Your task to perform on an android device: find which apps use the phone's location Image 0: 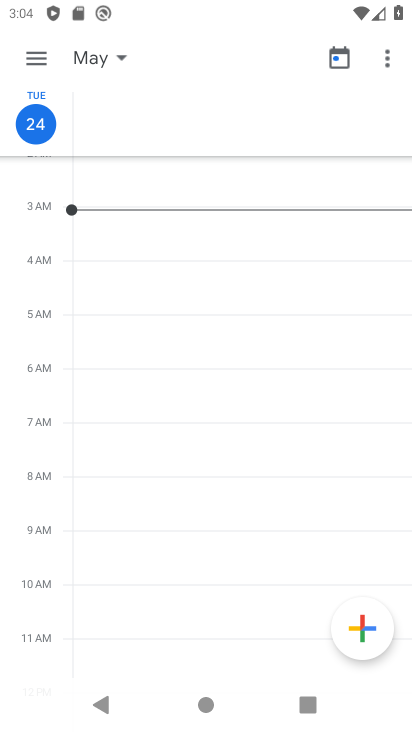
Step 0: press back button
Your task to perform on an android device: find which apps use the phone's location Image 1: 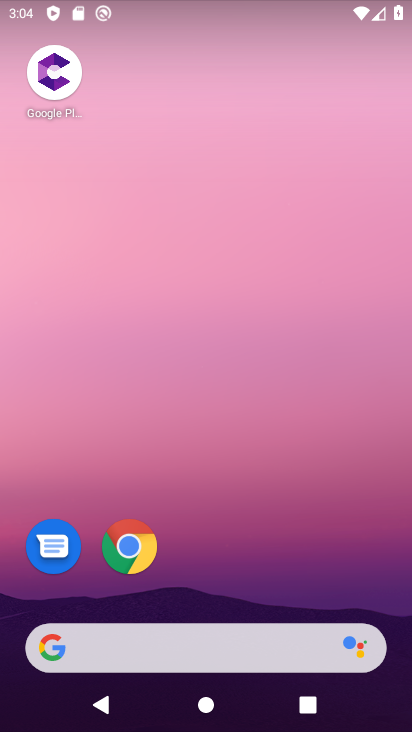
Step 1: drag from (200, 631) to (137, 44)
Your task to perform on an android device: find which apps use the phone's location Image 2: 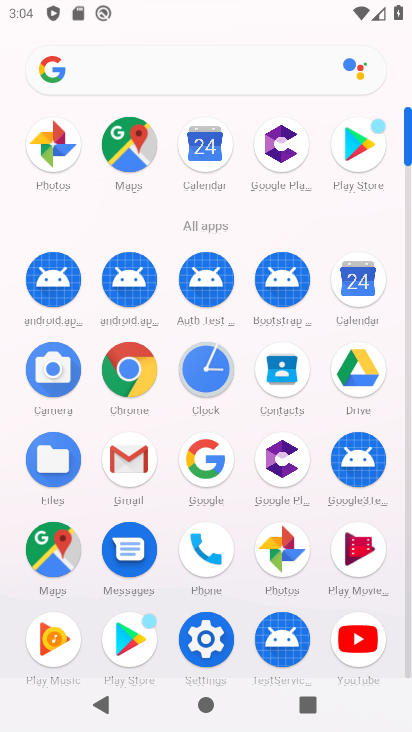
Step 2: click (211, 633)
Your task to perform on an android device: find which apps use the phone's location Image 3: 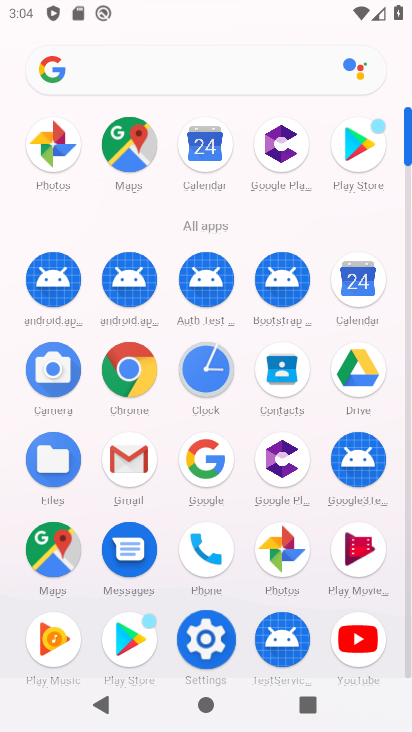
Step 3: click (211, 633)
Your task to perform on an android device: find which apps use the phone's location Image 4: 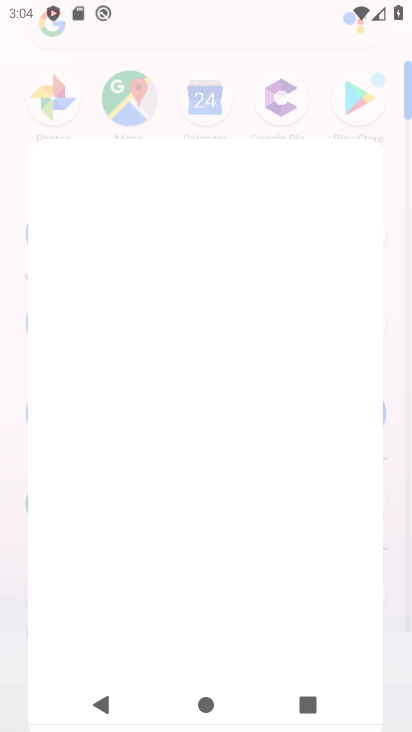
Step 4: click (211, 633)
Your task to perform on an android device: find which apps use the phone's location Image 5: 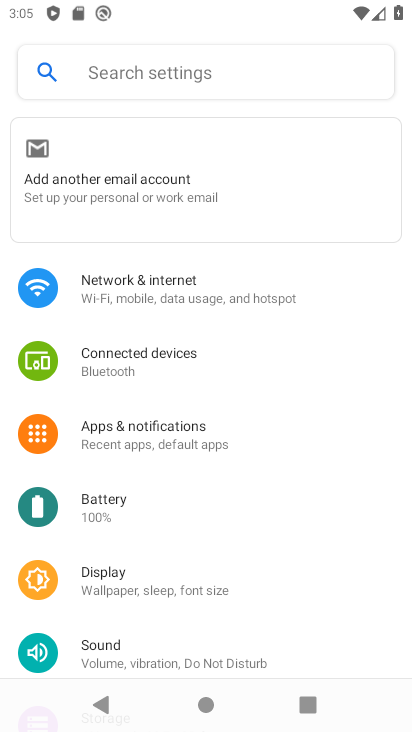
Step 5: drag from (119, 425) to (97, 180)
Your task to perform on an android device: find which apps use the phone's location Image 6: 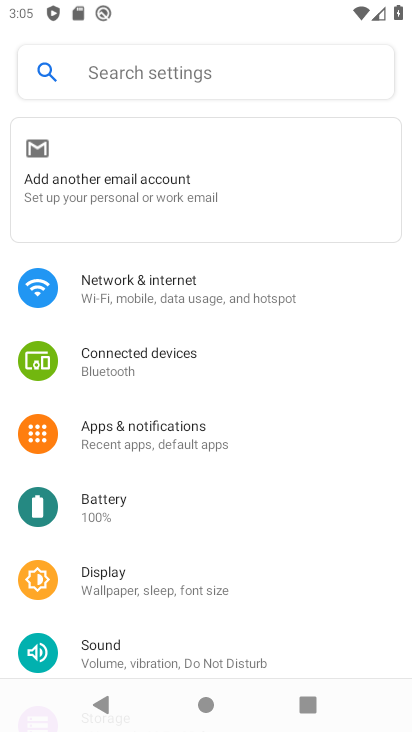
Step 6: drag from (116, 504) to (110, 190)
Your task to perform on an android device: find which apps use the phone's location Image 7: 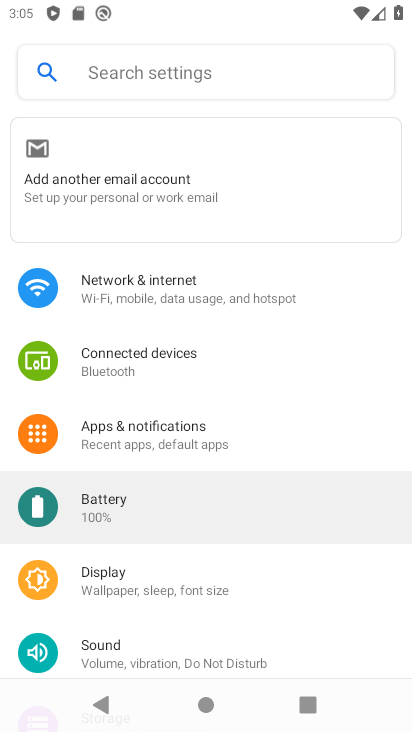
Step 7: drag from (188, 365) to (185, 228)
Your task to perform on an android device: find which apps use the phone's location Image 8: 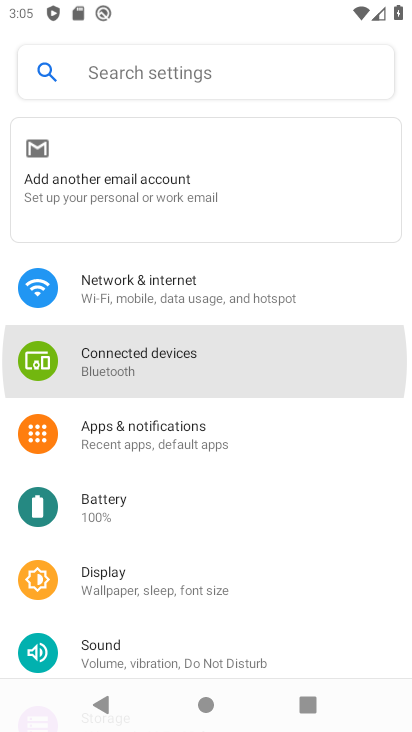
Step 8: drag from (128, 481) to (138, 430)
Your task to perform on an android device: find which apps use the phone's location Image 9: 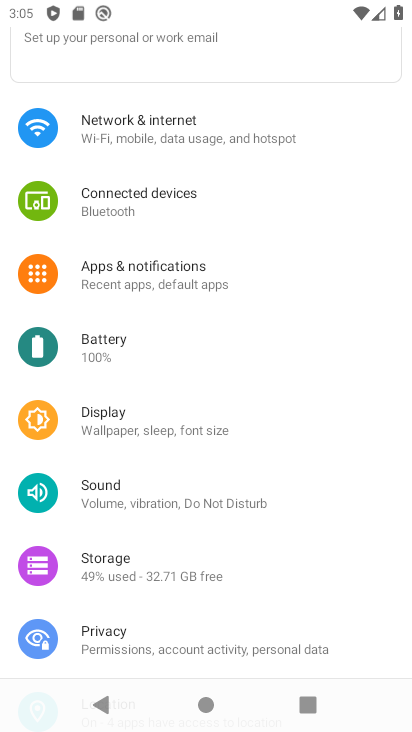
Step 9: drag from (154, 390) to (136, 309)
Your task to perform on an android device: find which apps use the phone's location Image 10: 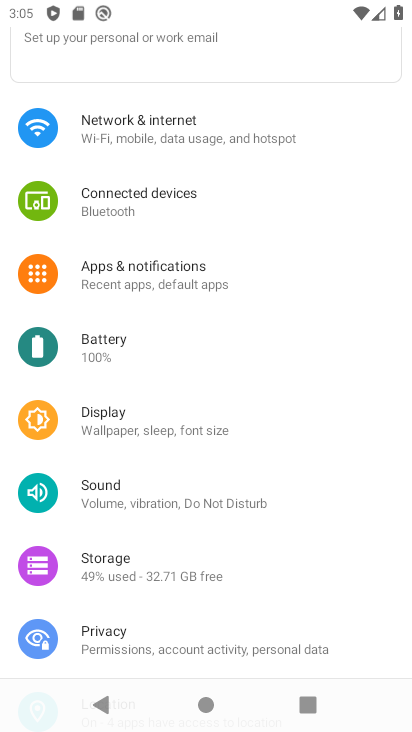
Step 10: click (136, 619)
Your task to perform on an android device: find which apps use the phone's location Image 11: 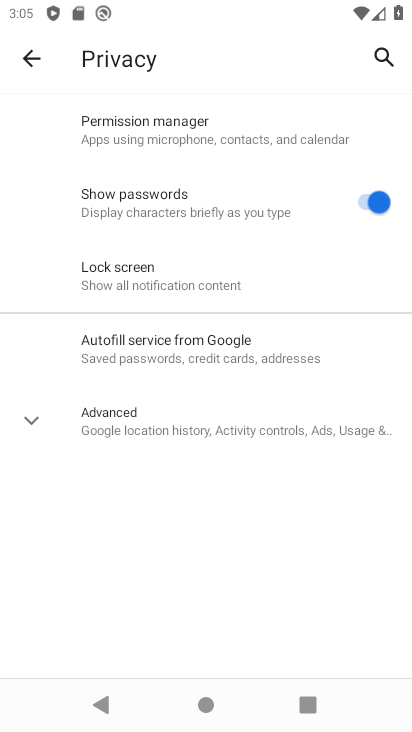
Step 11: click (28, 52)
Your task to perform on an android device: find which apps use the phone's location Image 12: 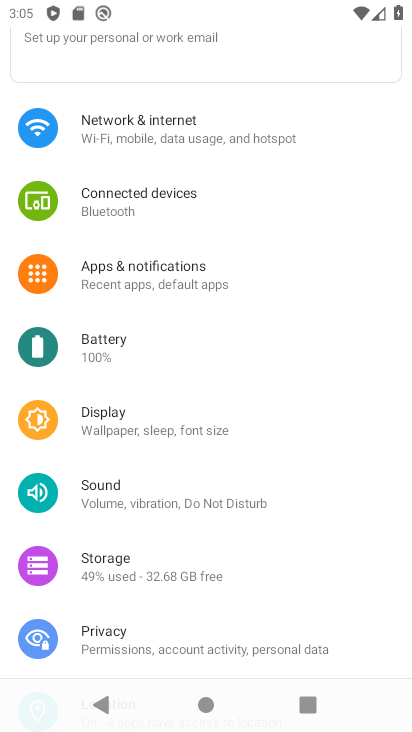
Step 12: click (140, 634)
Your task to perform on an android device: find which apps use the phone's location Image 13: 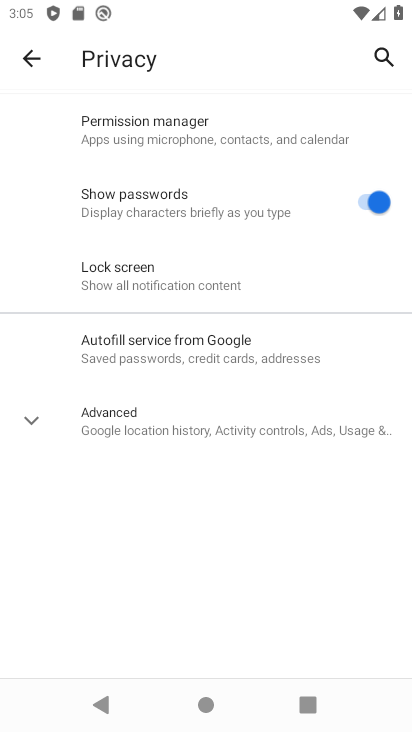
Step 13: click (28, 46)
Your task to perform on an android device: find which apps use the phone's location Image 14: 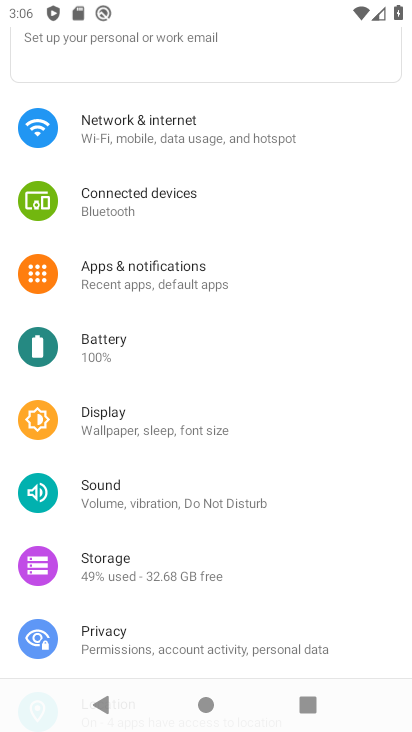
Step 14: drag from (142, 529) to (107, 72)
Your task to perform on an android device: find which apps use the phone's location Image 15: 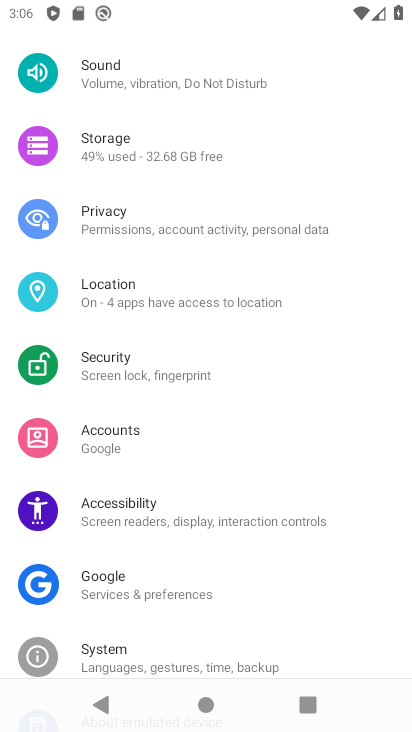
Step 15: click (118, 298)
Your task to perform on an android device: find which apps use the phone's location Image 16: 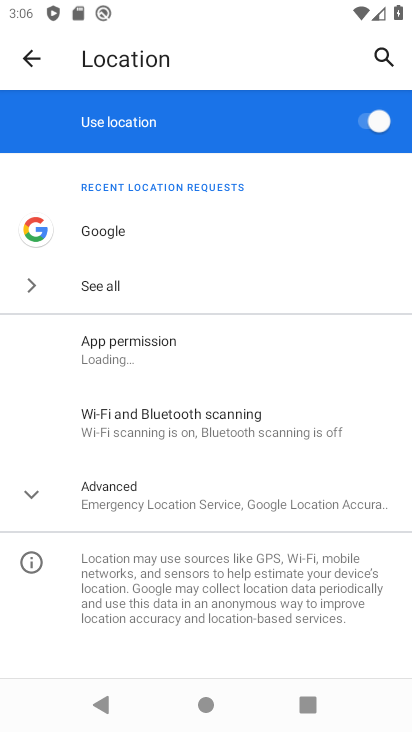
Step 16: click (106, 303)
Your task to perform on an android device: find which apps use the phone's location Image 17: 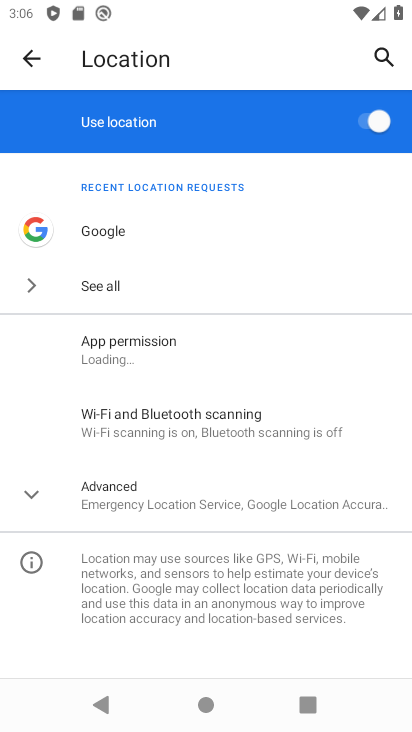
Step 17: click (118, 350)
Your task to perform on an android device: find which apps use the phone's location Image 18: 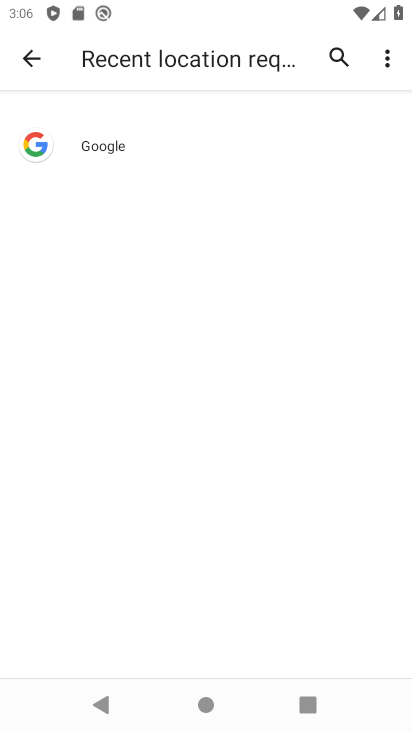
Step 18: click (32, 47)
Your task to perform on an android device: find which apps use the phone's location Image 19: 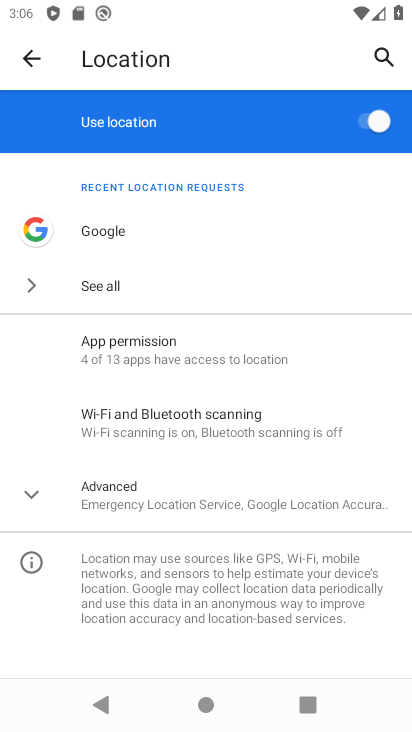
Step 19: click (101, 359)
Your task to perform on an android device: find which apps use the phone's location Image 20: 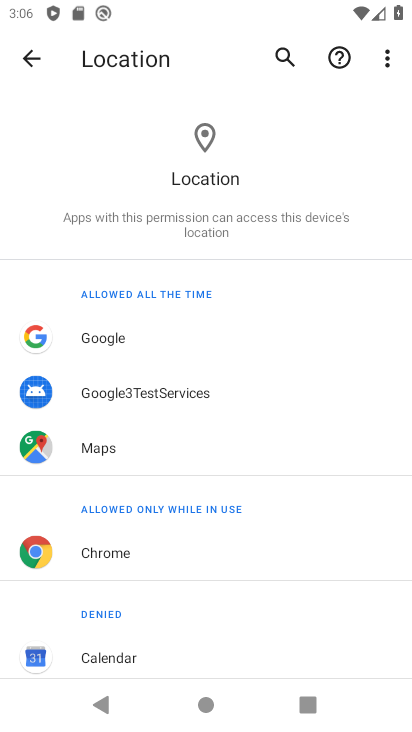
Step 20: task complete